Your task to perform on an android device: delete browsing data in the chrome app Image 0: 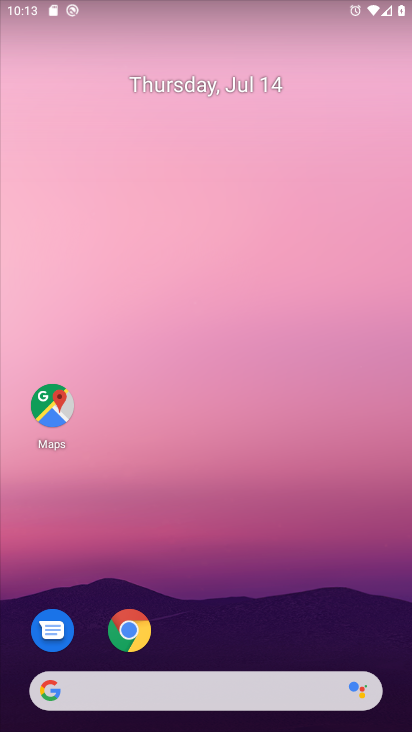
Step 0: drag from (181, 656) to (216, 189)
Your task to perform on an android device: delete browsing data in the chrome app Image 1: 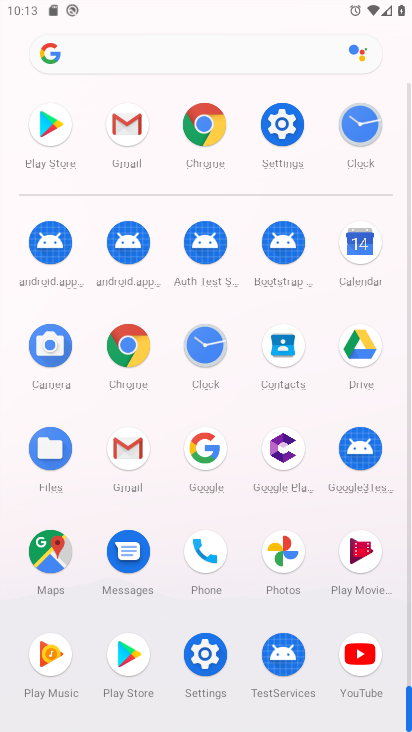
Step 1: click (125, 353)
Your task to perform on an android device: delete browsing data in the chrome app Image 2: 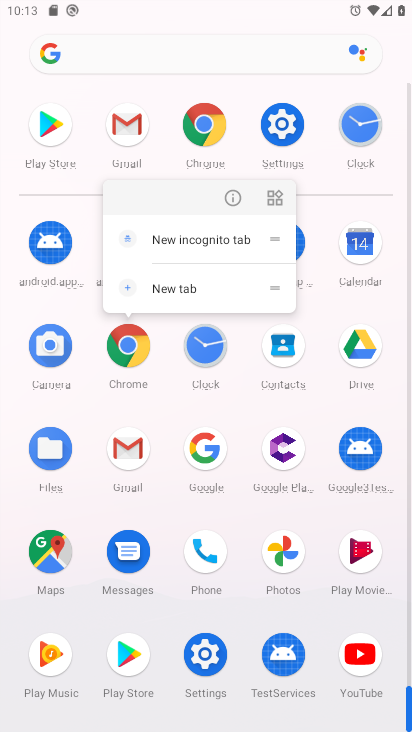
Step 2: click (230, 196)
Your task to perform on an android device: delete browsing data in the chrome app Image 3: 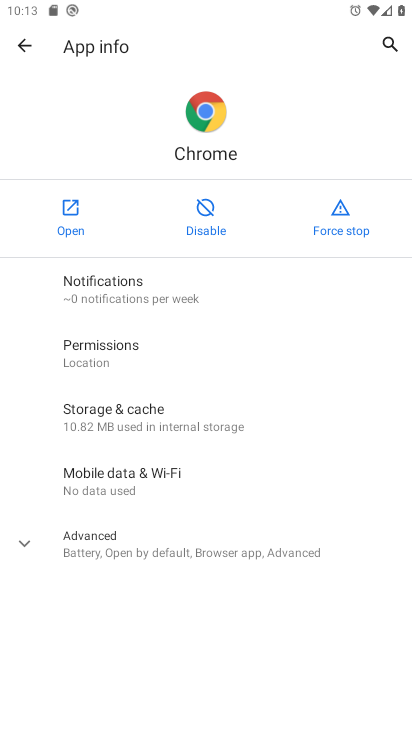
Step 3: click (70, 227)
Your task to perform on an android device: delete browsing data in the chrome app Image 4: 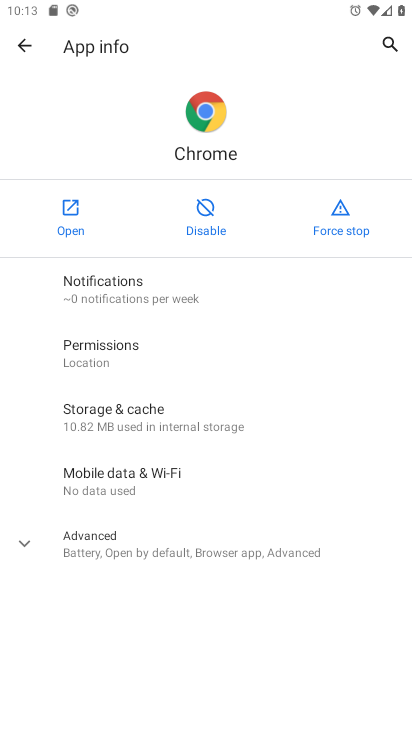
Step 4: click (70, 227)
Your task to perform on an android device: delete browsing data in the chrome app Image 5: 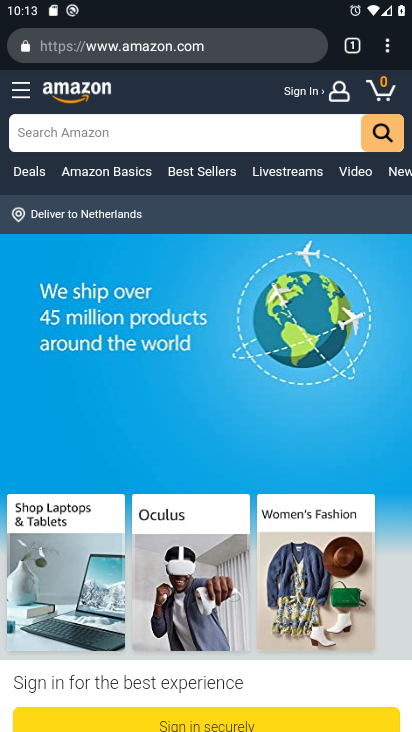
Step 5: click (386, 45)
Your task to perform on an android device: delete browsing data in the chrome app Image 6: 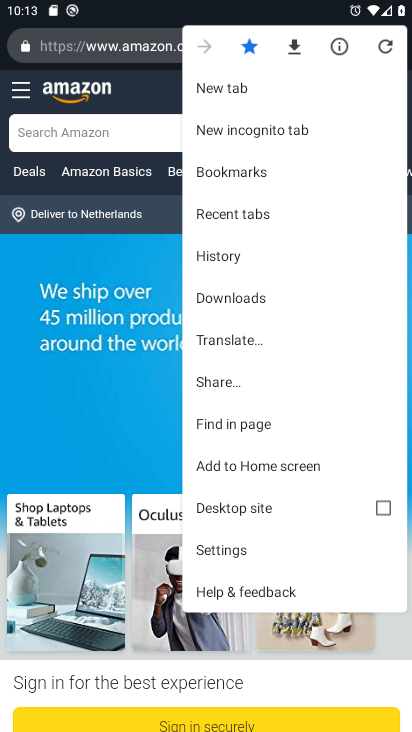
Step 6: click (236, 260)
Your task to perform on an android device: delete browsing data in the chrome app Image 7: 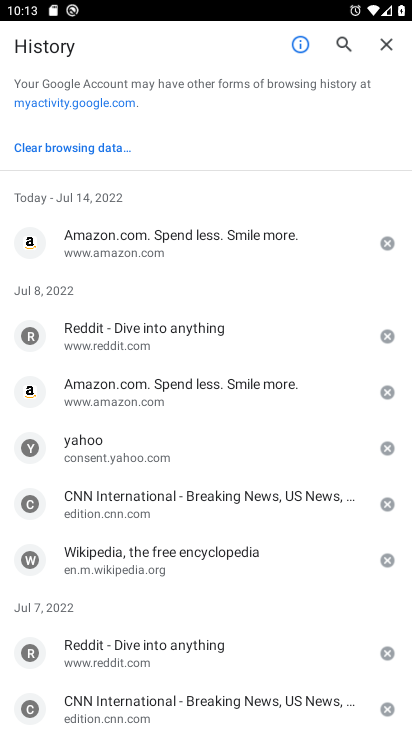
Step 7: drag from (241, 638) to (311, 234)
Your task to perform on an android device: delete browsing data in the chrome app Image 8: 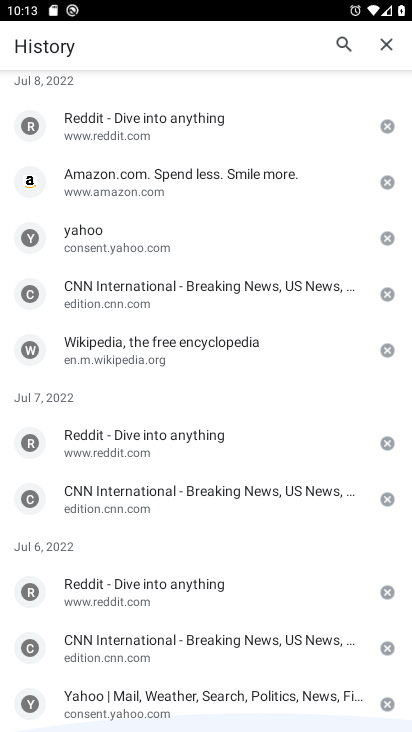
Step 8: drag from (218, 293) to (204, 730)
Your task to perform on an android device: delete browsing data in the chrome app Image 9: 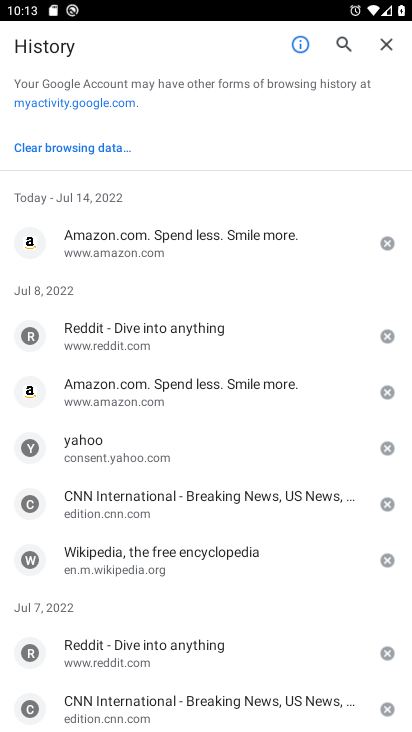
Step 9: click (87, 155)
Your task to perform on an android device: delete browsing data in the chrome app Image 10: 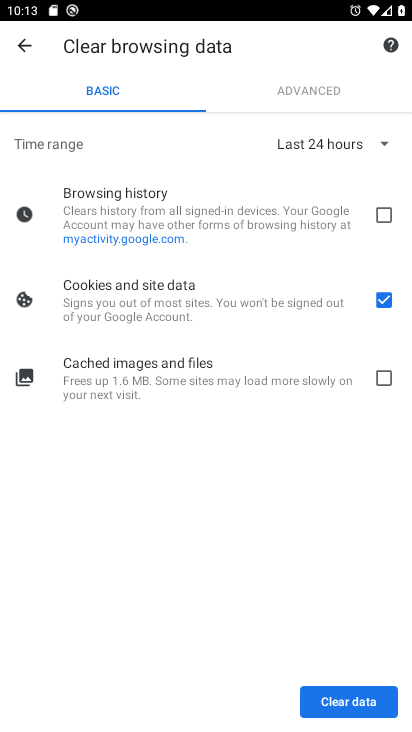
Step 10: click (392, 176)
Your task to perform on an android device: delete browsing data in the chrome app Image 11: 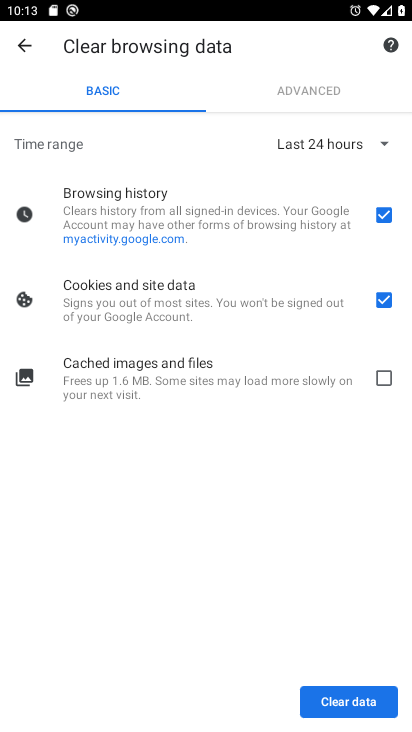
Step 11: click (368, 379)
Your task to perform on an android device: delete browsing data in the chrome app Image 12: 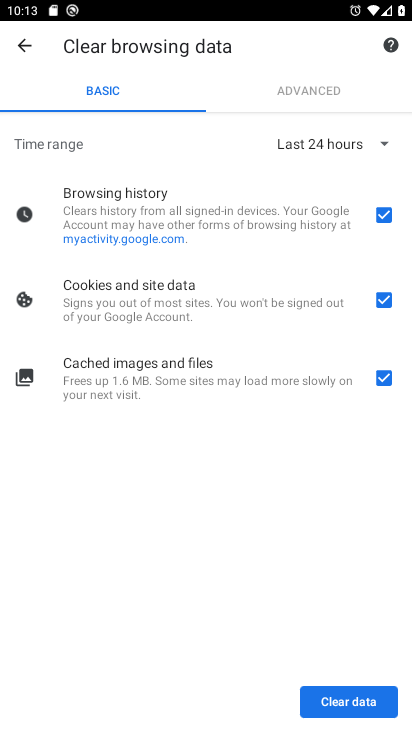
Step 12: click (341, 137)
Your task to perform on an android device: delete browsing data in the chrome app Image 13: 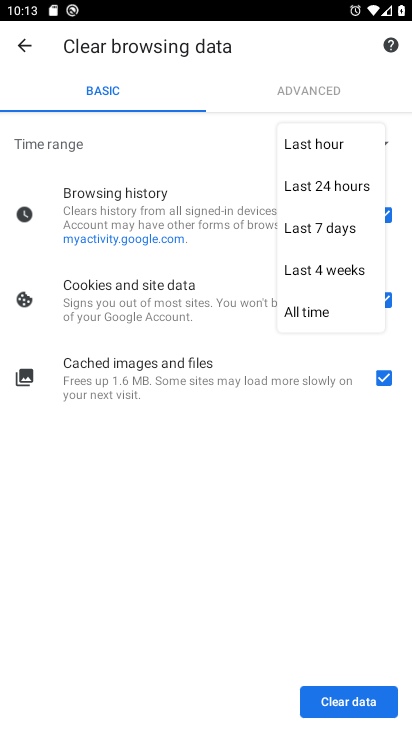
Step 13: click (321, 314)
Your task to perform on an android device: delete browsing data in the chrome app Image 14: 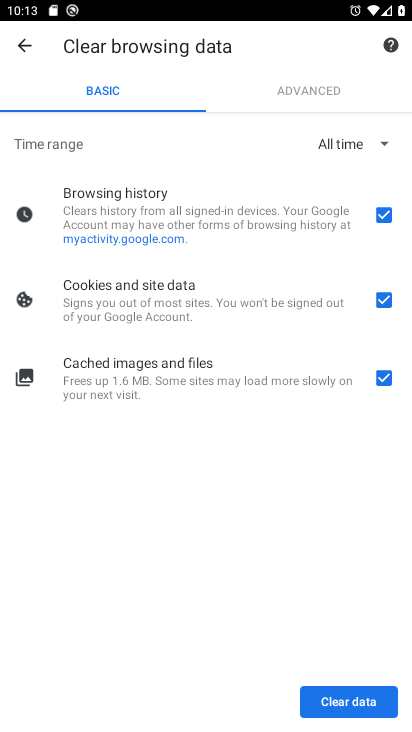
Step 14: click (332, 693)
Your task to perform on an android device: delete browsing data in the chrome app Image 15: 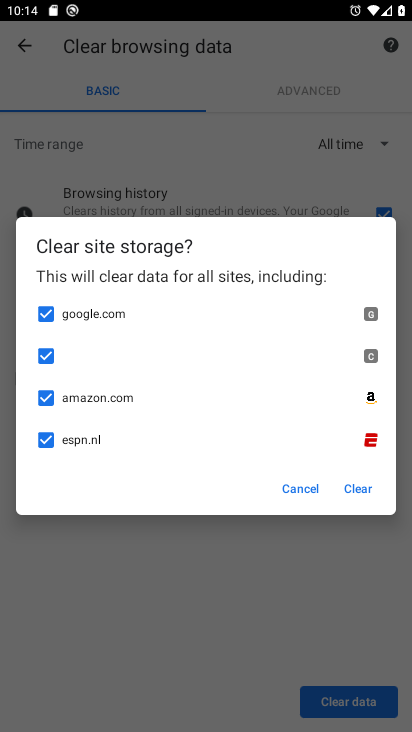
Step 15: click (347, 493)
Your task to perform on an android device: delete browsing data in the chrome app Image 16: 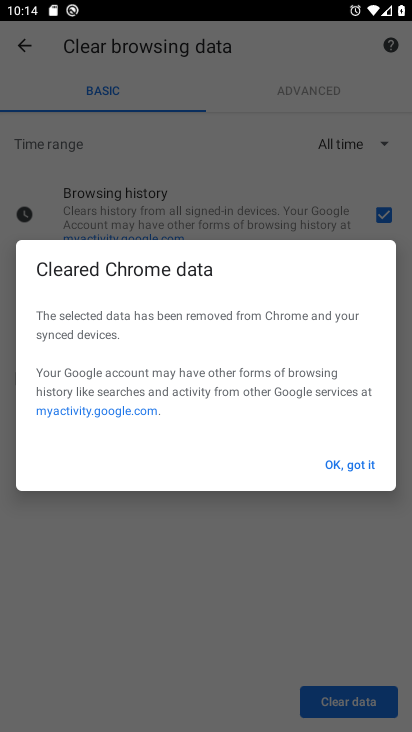
Step 16: click (351, 474)
Your task to perform on an android device: delete browsing data in the chrome app Image 17: 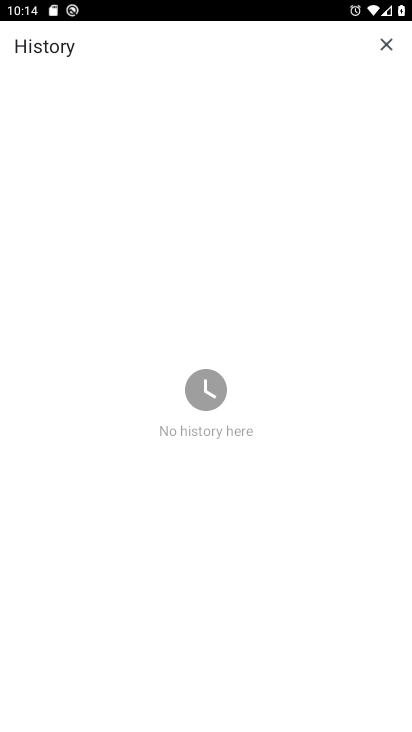
Step 17: task complete